Your task to perform on an android device: toggle data saver in the chrome app Image 0: 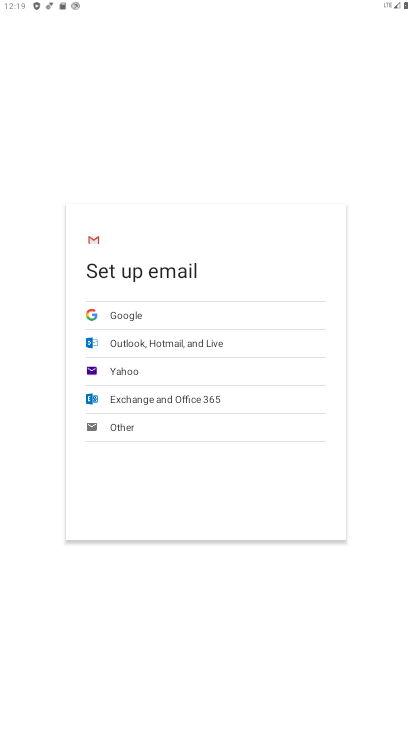
Step 0: press home button
Your task to perform on an android device: toggle data saver in the chrome app Image 1: 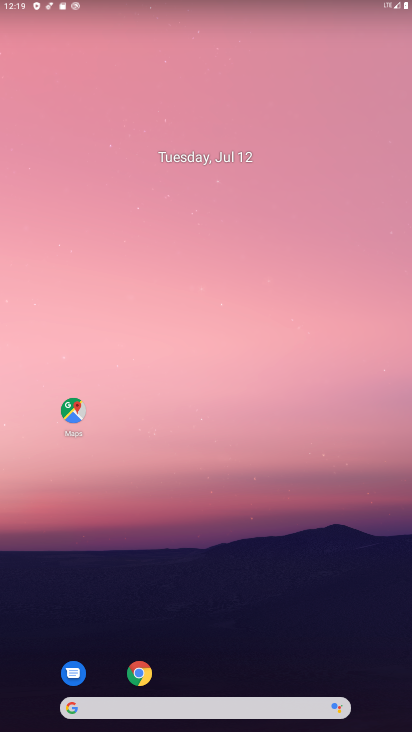
Step 1: drag from (271, 633) to (240, 0)
Your task to perform on an android device: toggle data saver in the chrome app Image 2: 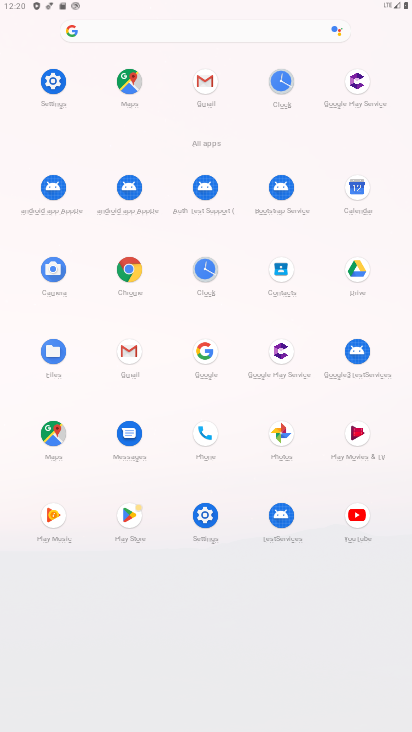
Step 2: click (117, 326)
Your task to perform on an android device: toggle data saver in the chrome app Image 3: 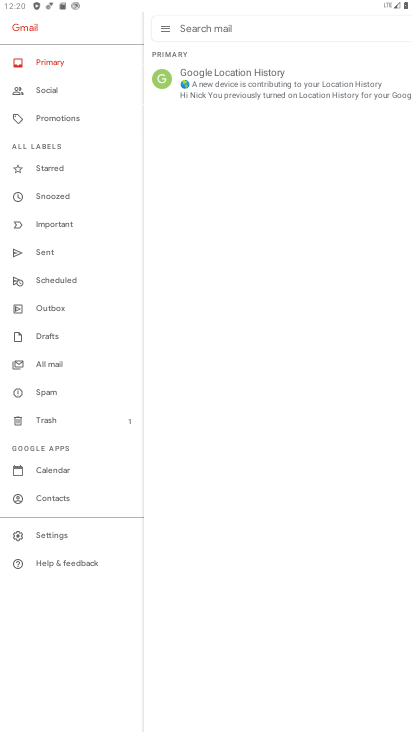
Step 3: press home button
Your task to perform on an android device: toggle data saver in the chrome app Image 4: 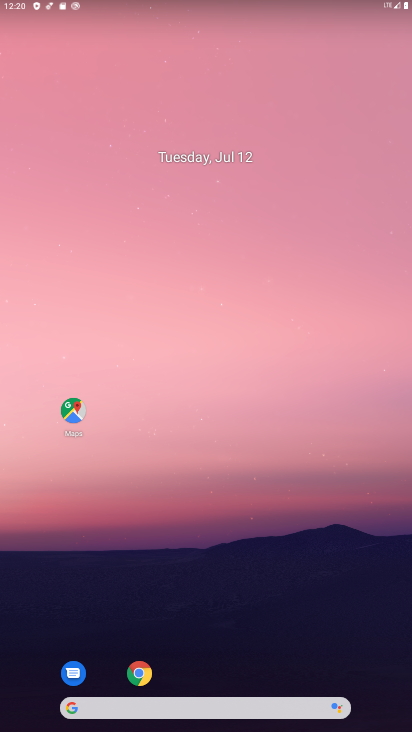
Step 4: press home button
Your task to perform on an android device: toggle data saver in the chrome app Image 5: 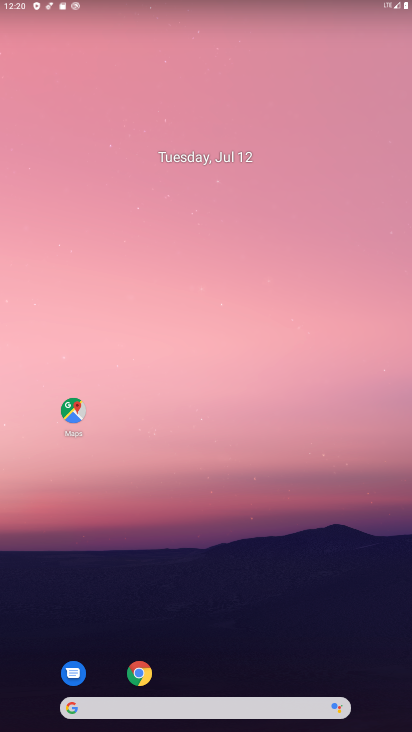
Step 5: click (140, 679)
Your task to perform on an android device: toggle data saver in the chrome app Image 6: 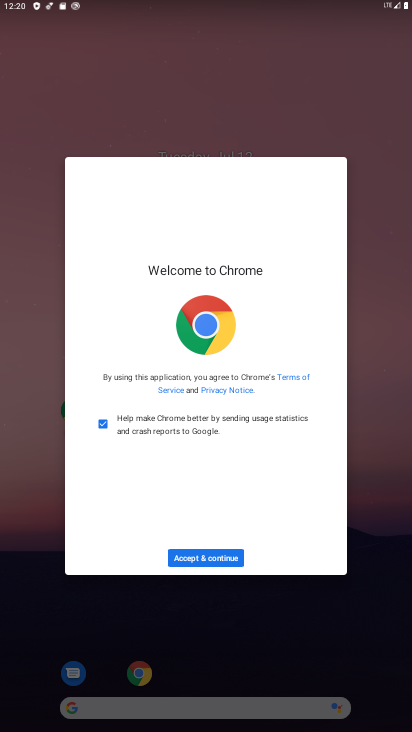
Step 6: click (191, 557)
Your task to perform on an android device: toggle data saver in the chrome app Image 7: 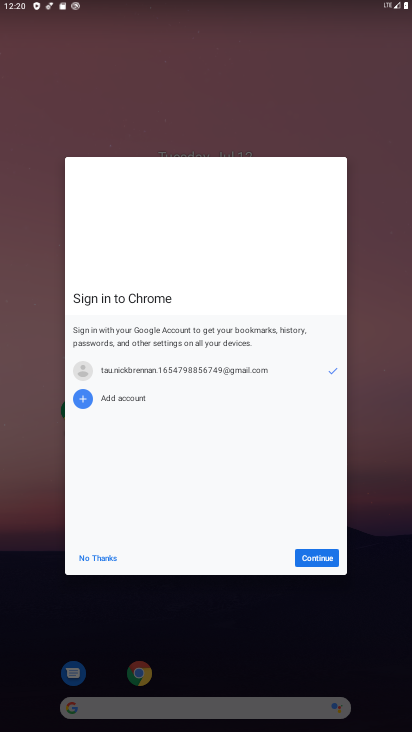
Step 7: click (314, 560)
Your task to perform on an android device: toggle data saver in the chrome app Image 8: 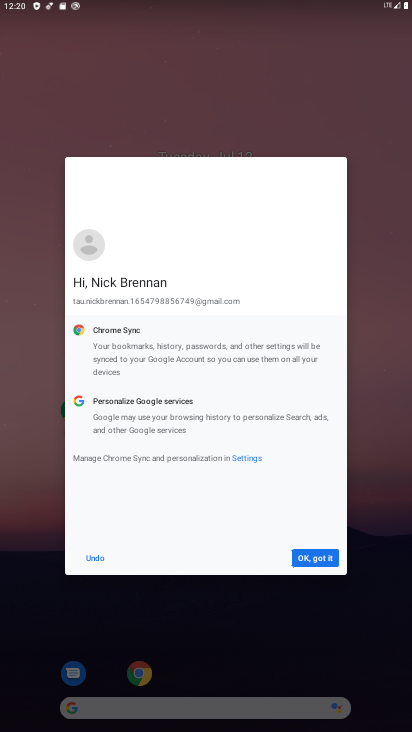
Step 8: click (320, 559)
Your task to perform on an android device: toggle data saver in the chrome app Image 9: 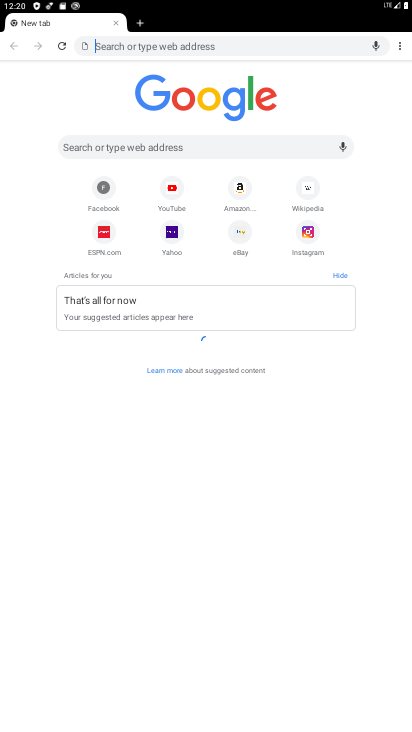
Step 9: click (404, 49)
Your task to perform on an android device: toggle data saver in the chrome app Image 10: 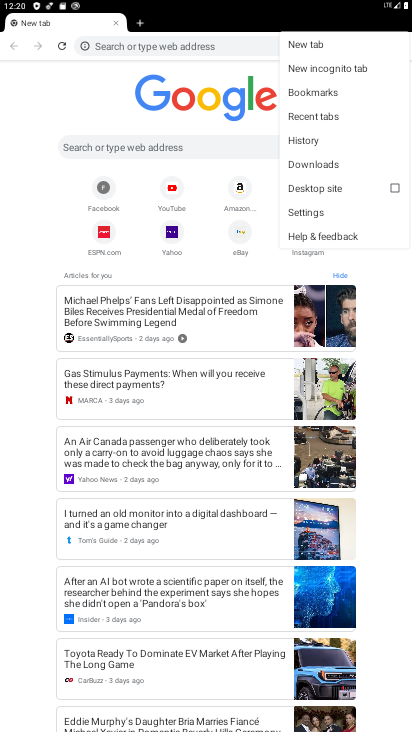
Step 10: click (332, 215)
Your task to perform on an android device: toggle data saver in the chrome app Image 11: 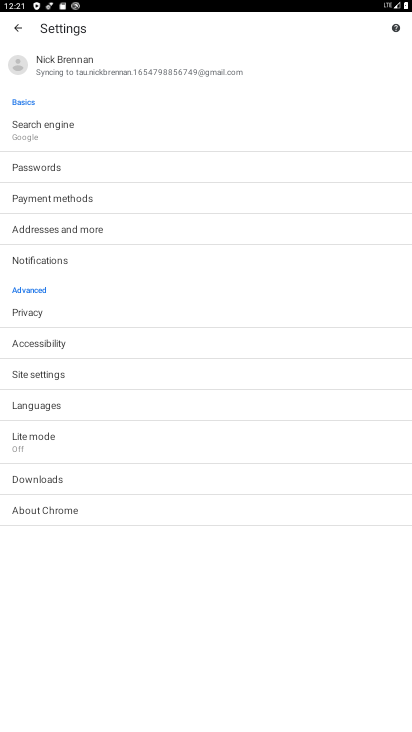
Step 11: click (106, 438)
Your task to perform on an android device: toggle data saver in the chrome app Image 12: 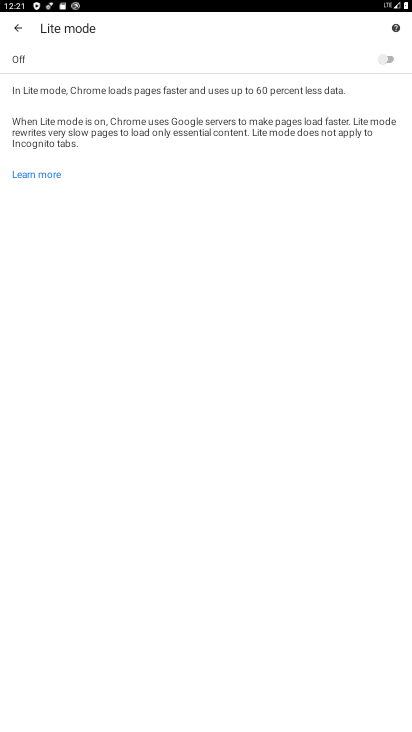
Step 12: click (387, 60)
Your task to perform on an android device: toggle data saver in the chrome app Image 13: 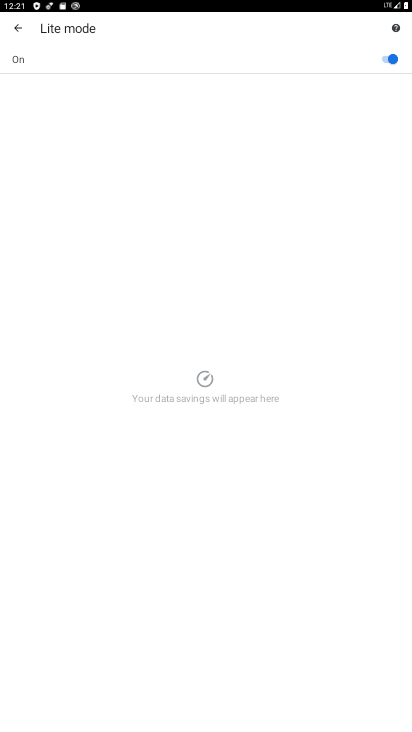
Step 13: task complete